Your task to perform on an android device: check storage Image 0: 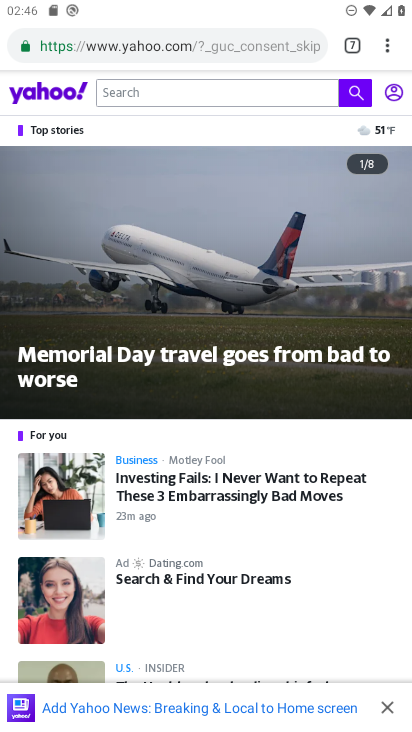
Step 0: press home button
Your task to perform on an android device: check storage Image 1: 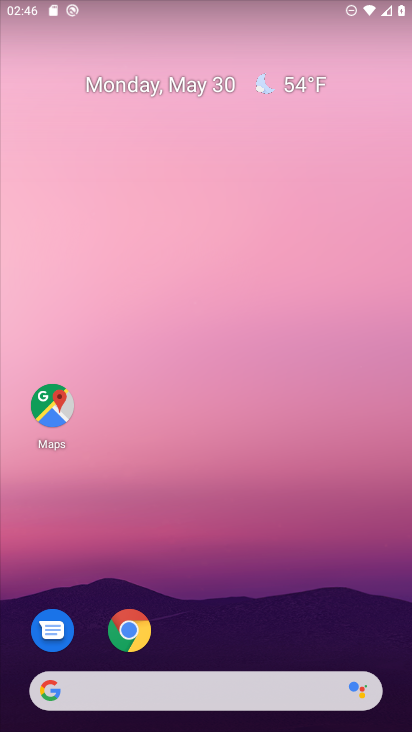
Step 1: drag from (174, 704) to (296, 183)
Your task to perform on an android device: check storage Image 2: 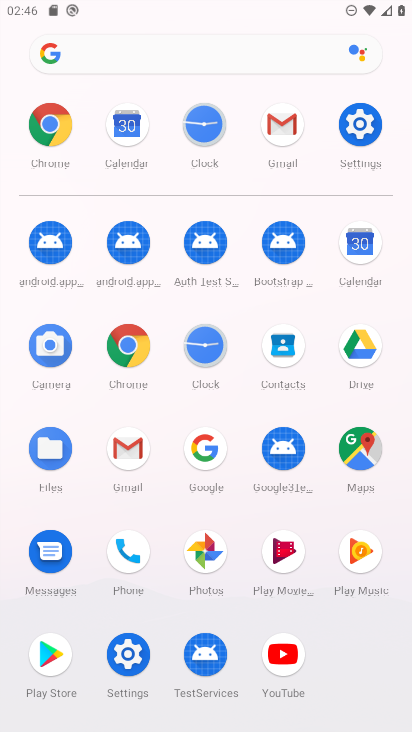
Step 2: click (360, 132)
Your task to perform on an android device: check storage Image 3: 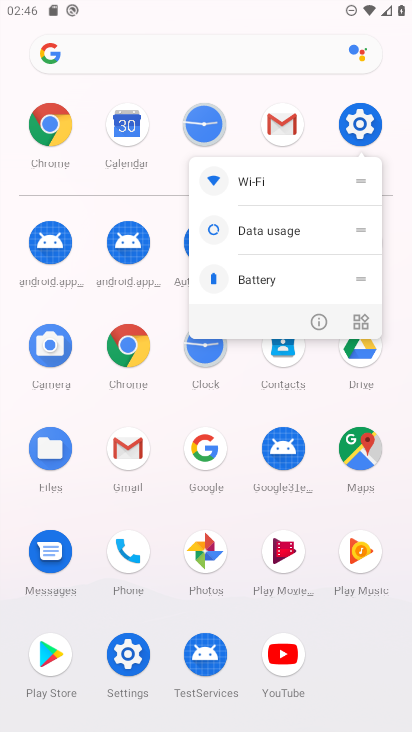
Step 3: click (362, 127)
Your task to perform on an android device: check storage Image 4: 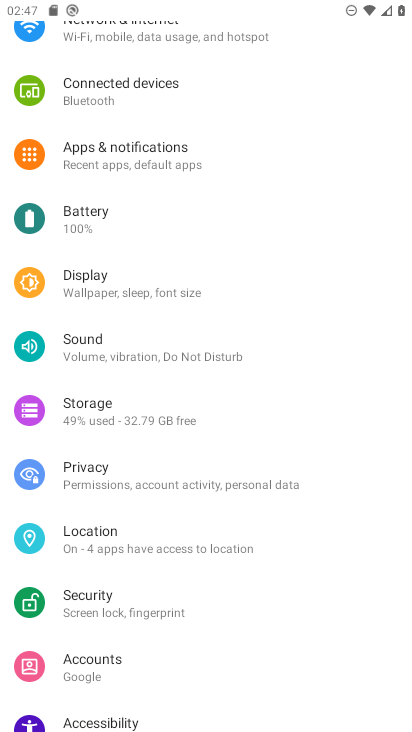
Step 4: click (111, 411)
Your task to perform on an android device: check storage Image 5: 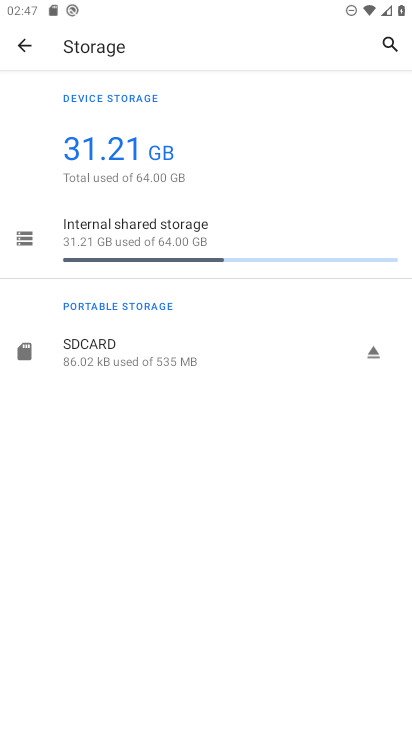
Step 5: task complete